Your task to perform on an android device: Search for the new Jordans on Nike.com Image 0: 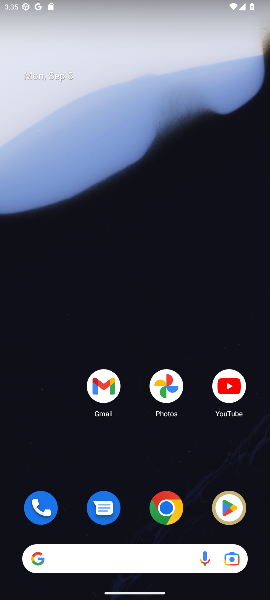
Step 0: click (166, 514)
Your task to perform on an android device: Search for the new Jordans on Nike.com Image 1: 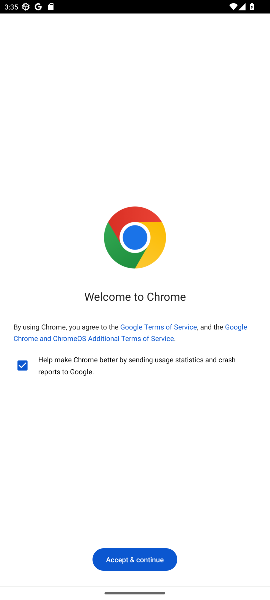
Step 1: click (117, 558)
Your task to perform on an android device: Search for the new Jordans on Nike.com Image 2: 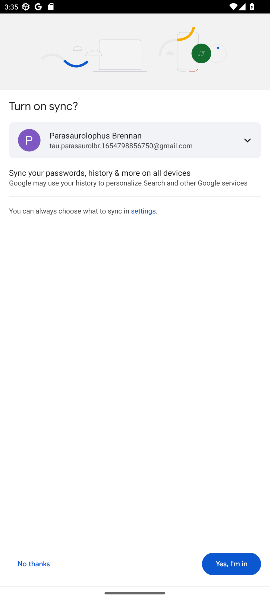
Step 2: click (229, 563)
Your task to perform on an android device: Search for the new Jordans on Nike.com Image 3: 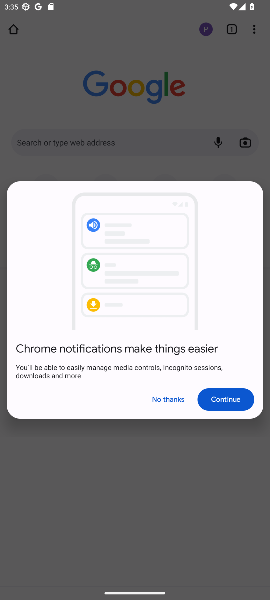
Step 3: click (167, 398)
Your task to perform on an android device: Search for the new Jordans on Nike.com Image 4: 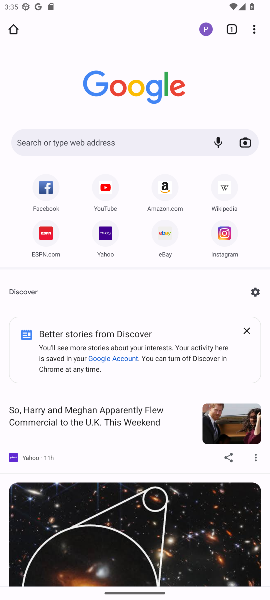
Step 4: click (124, 145)
Your task to perform on an android device: Search for the new Jordans on Nike.com Image 5: 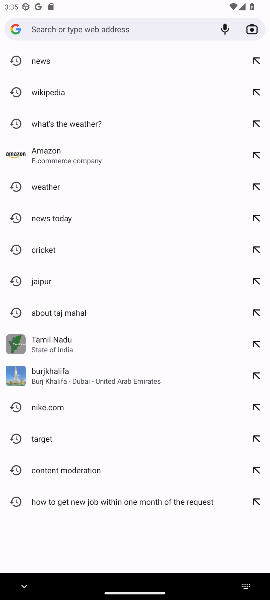
Step 5: type "Nike.com"
Your task to perform on an android device: Search for the new Jordans on Nike.com Image 6: 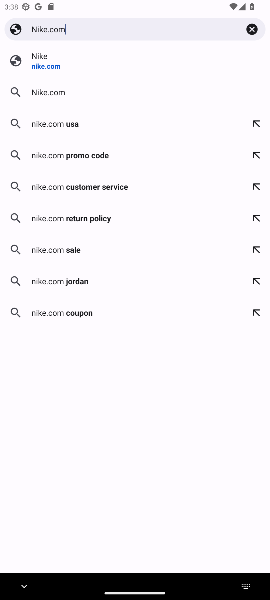
Step 6: click (82, 57)
Your task to perform on an android device: Search for the new Jordans on Nike.com Image 7: 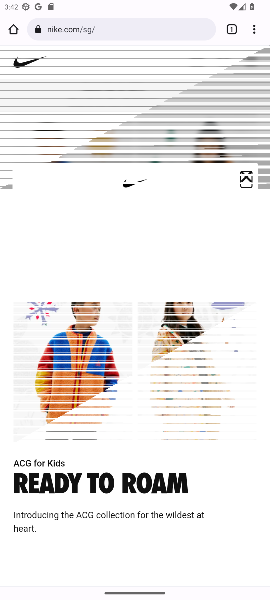
Step 7: task complete